Your task to perform on an android device: Open the calendar and show me this week's events? Image 0: 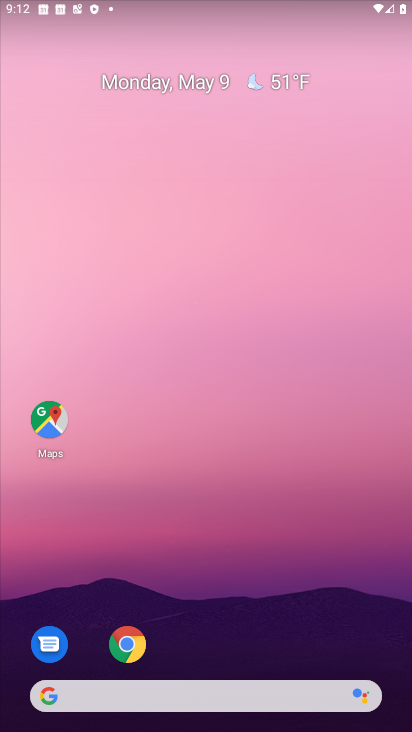
Step 0: drag from (196, 682) to (287, 15)
Your task to perform on an android device: Open the calendar and show me this week's events? Image 1: 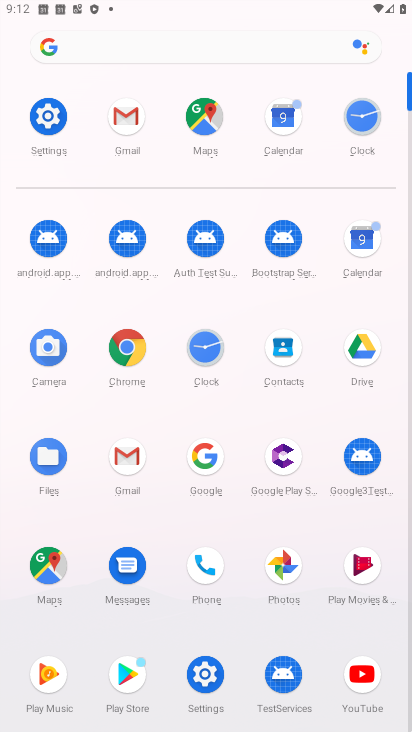
Step 1: click (361, 237)
Your task to perform on an android device: Open the calendar and show me this week's events? Image 2: 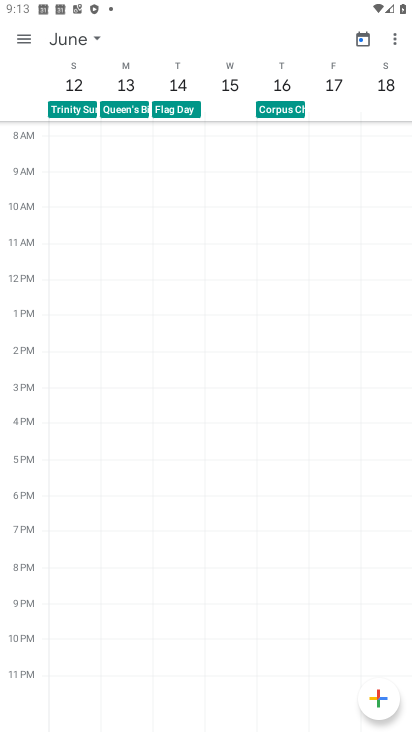
Step 2: click (359, 44)
Your task to perform on an android device: Open the calendar and show me this week's events? Image 3: 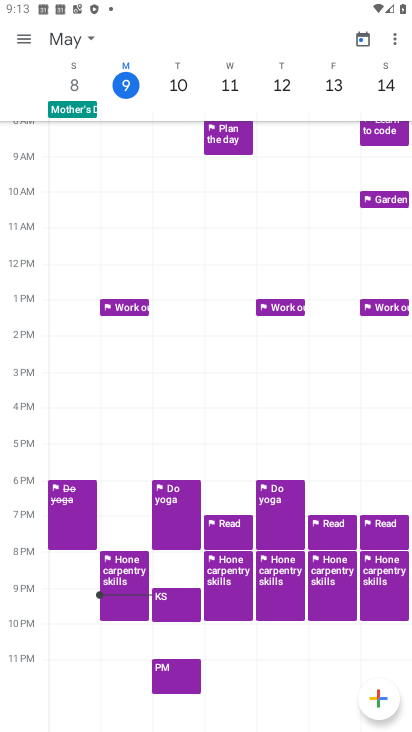
Step 3: task complete